Your task to perform on an android device: turn on wifi Image 0: 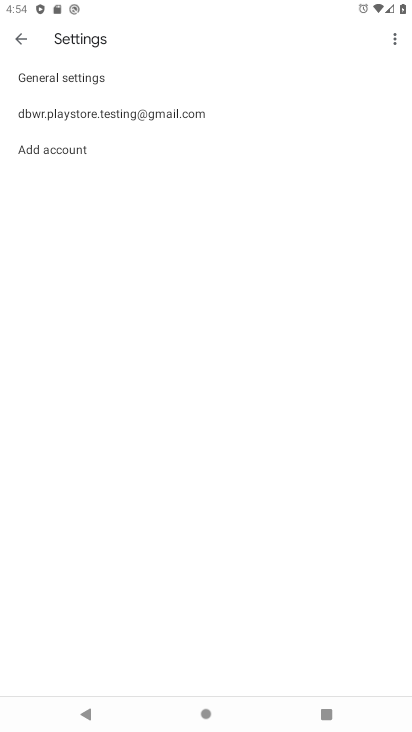
Step 0: click (84, 715)
Your task to perform on an android device: turn on wifi Image 1: 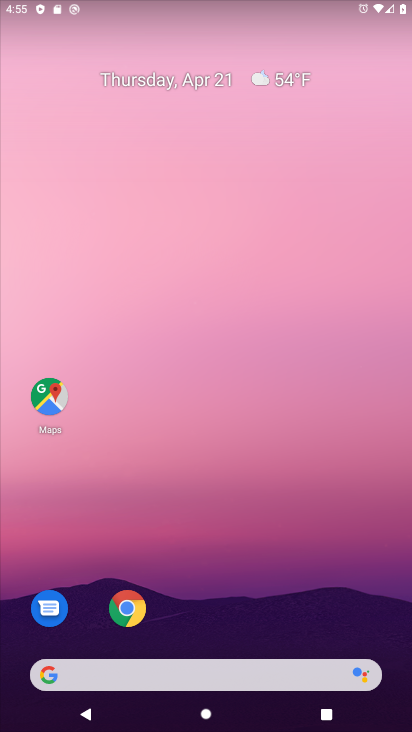
Step 1: drag from (281, 700) to (229, 185)
Your task to perform on an android device: turn on wifi Image 2: 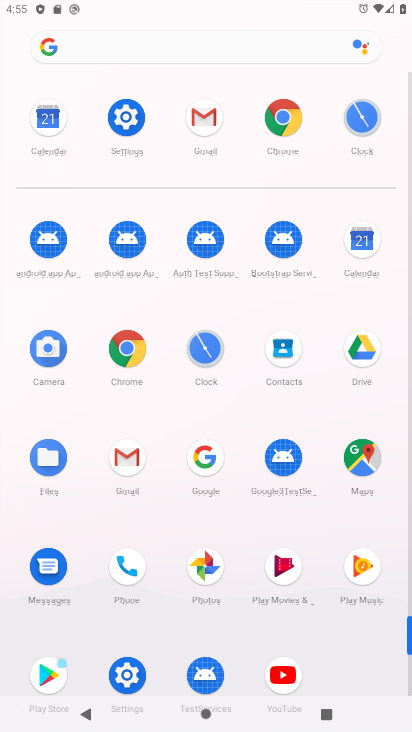
Step 2: click (123, 114)
Your task to perform on an android device: turn on wifi Image 3: 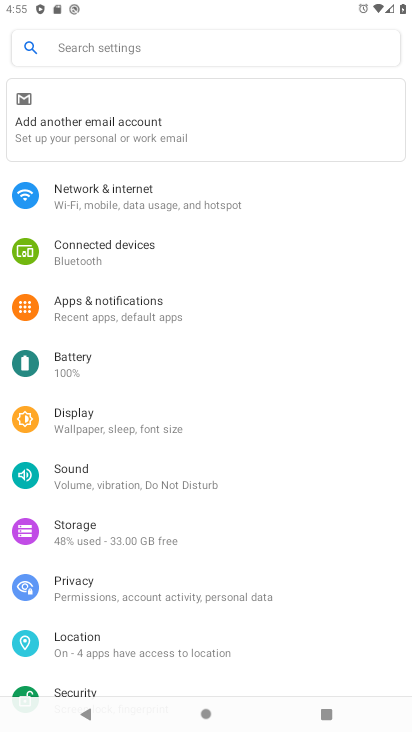
Step 3: click (132, 200)
Your task to perform on an android device: turn on wifi Image 4: 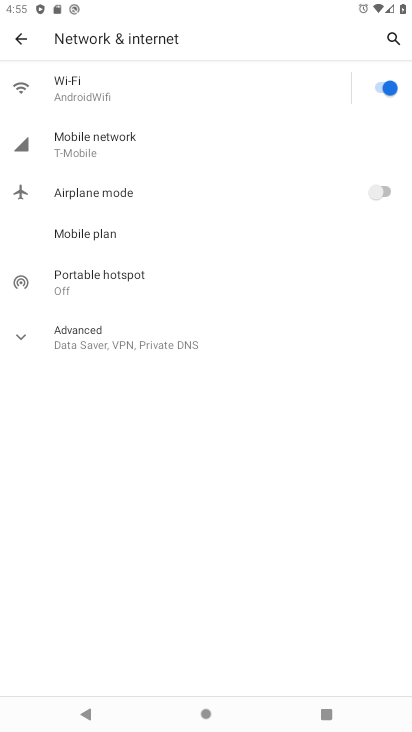
Step 4: click (208, 99)
Your task to perform on an android device: turn on wifi Image 5: 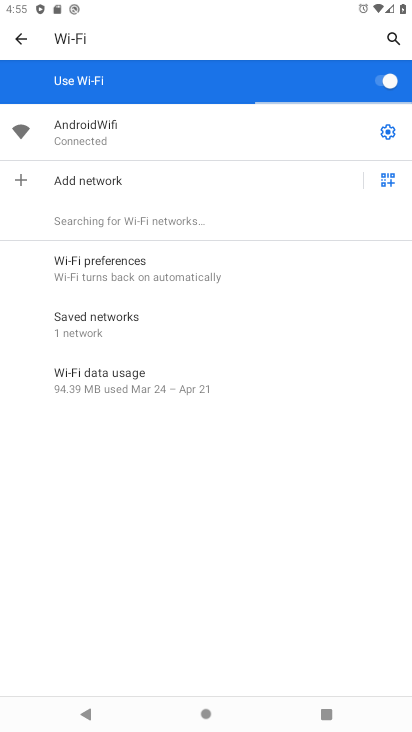
Step 5: task complete